Your task to perform on an android device: visit the assistant section in the google photos Image 0: 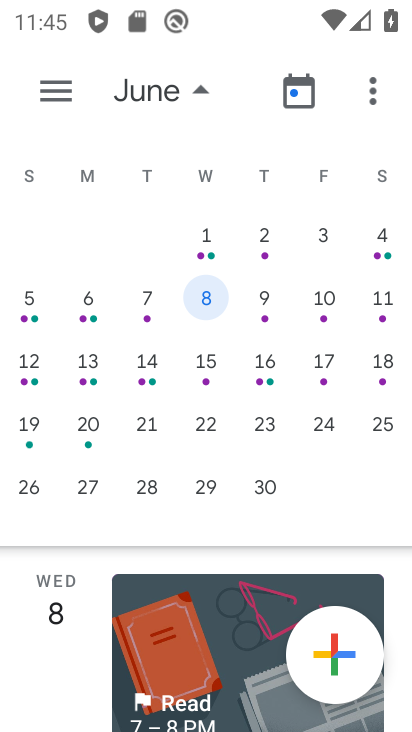
Step 0: press home button
Your task to perform on an android device: visit the assistant section in the google photos Image 1: 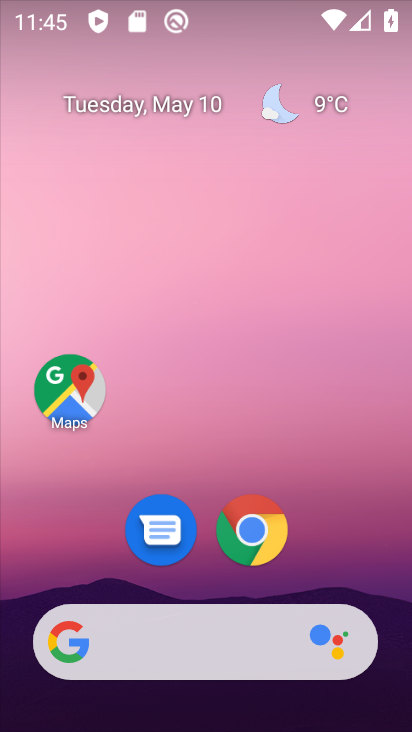
Step 1: drag from (355, 282) to (356, 21)
Your task to perform on an android device: visit the assistant section in the google photos Image 2: 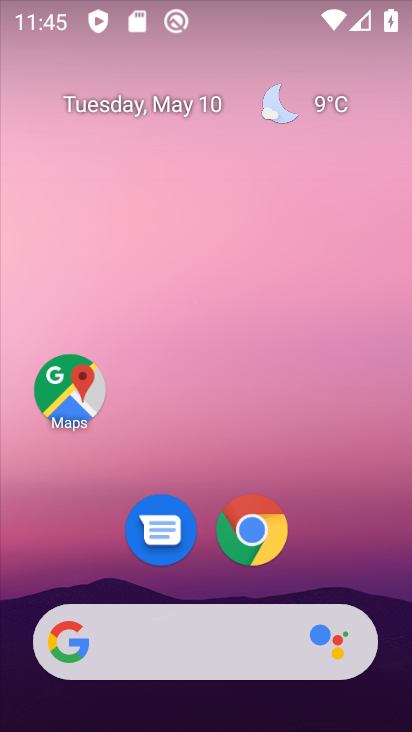
Step 2: drag from (331, 549) to (319, 92)
Your task to perform on an android device: visit the assistant section in the google photos Image 3: 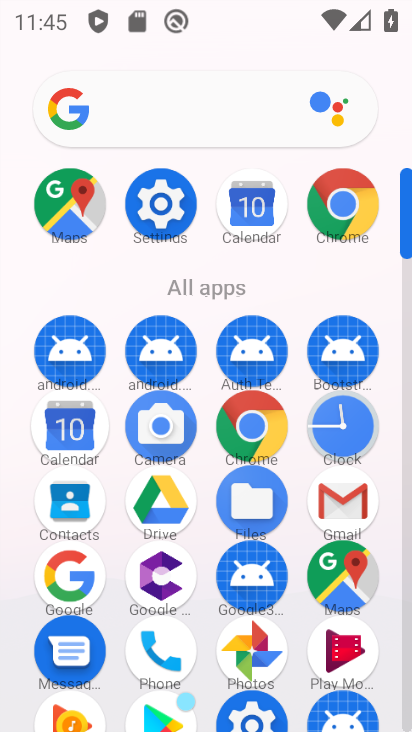
Step 3: click (269, 665)
Your task to perform on an android device: visit the assistant section in the google photos Image 4: 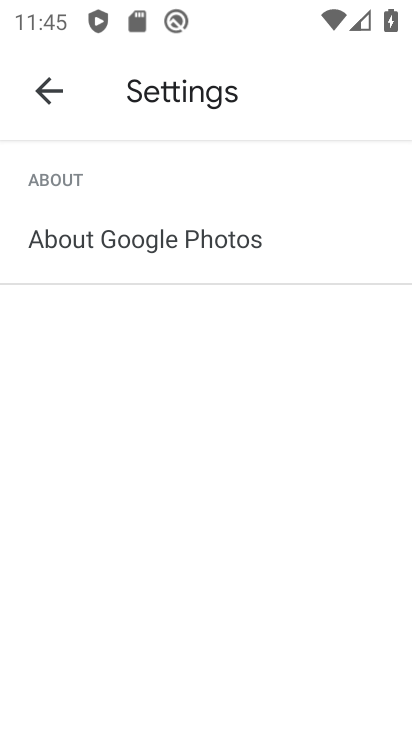
Step 4: click (38, 106)
Your task to perform on an android device: visit the assistant section in the google photos Image 5: 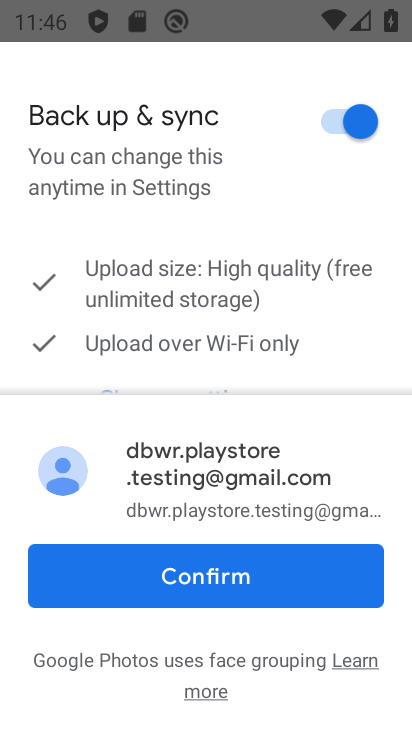
Step 5: click (207, 566)
Your task to perform on an android device: visit the assistant section in the google photos Image 6: 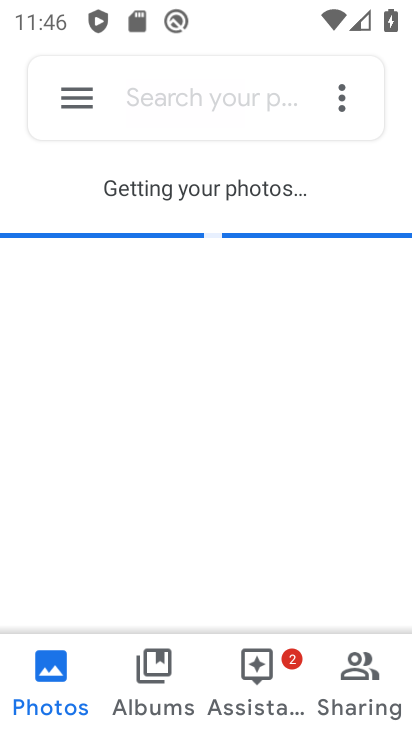
Step 6: click (227, 667)
Your task to perform on an android device: visit the assistant section in the google photos Image 7: 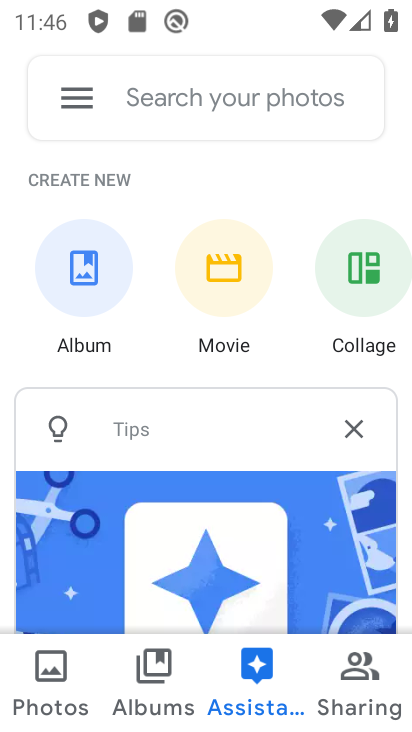
Step 7: task complete